Your task to perform on an android device: Find coffee shops on Maps Image 0: 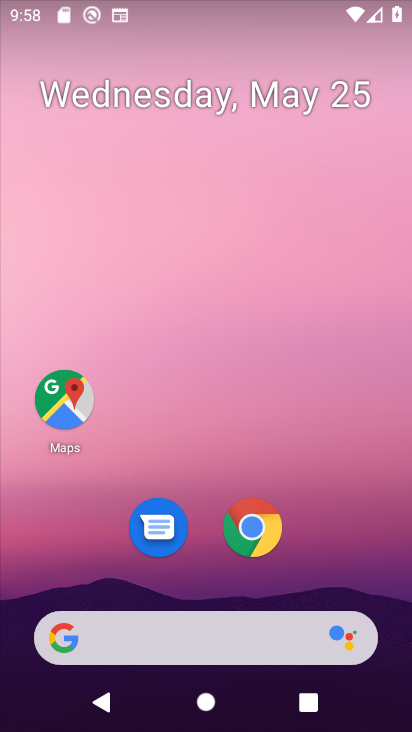
Step 0: click (66, 390)
Your task to perform on an android device: Find coffee shops on Maps Image 1: 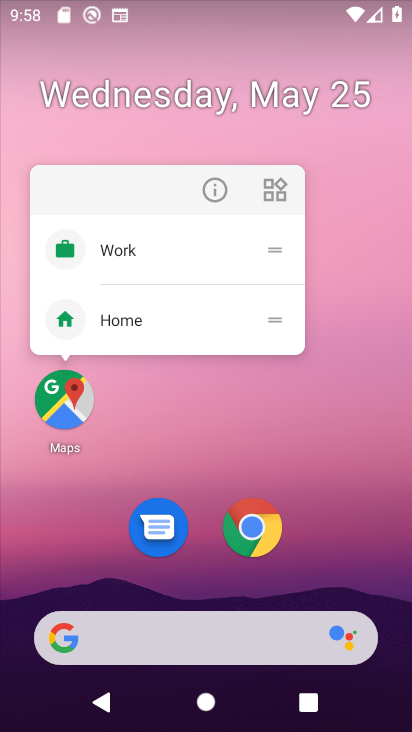
Step 1: click (77, 419)
Your task to perform on an android device: Find coffee shops on Maps Image 2: 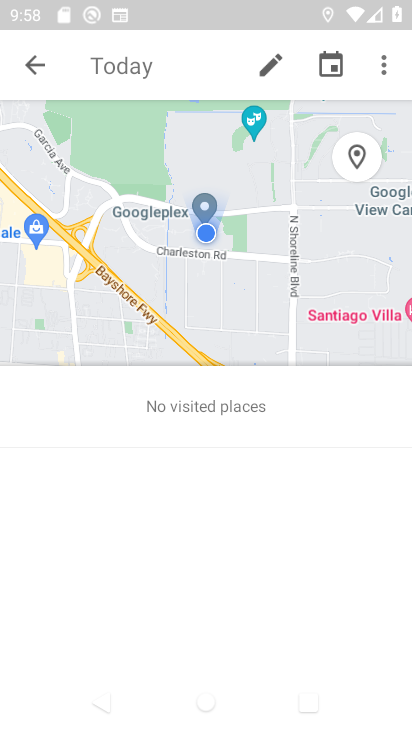
Step 2: click (48, 62)
Your task to perform on an android device: Find coffee shops on Maps Image 3: 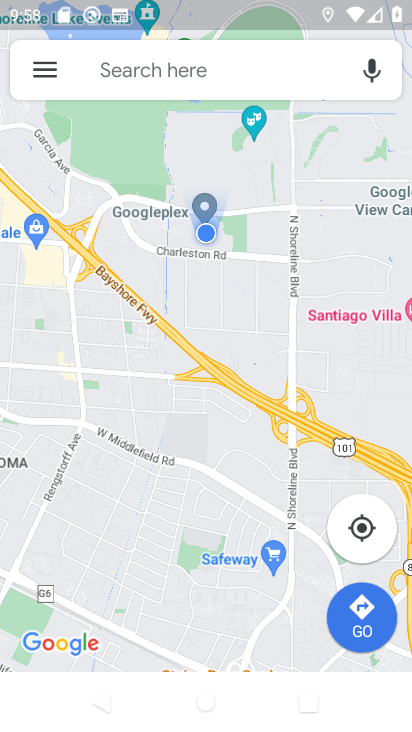
Step 3: click (185, 67)
Your task to perform on an android device: Find coffee shops on Maps Image 4: 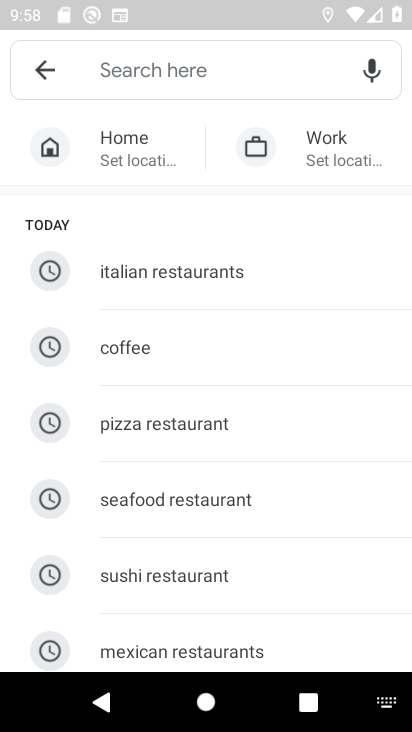
Step 4: click (251, 340)
Your task to perform on an android device: Find coffee shops on Maps Image 5: 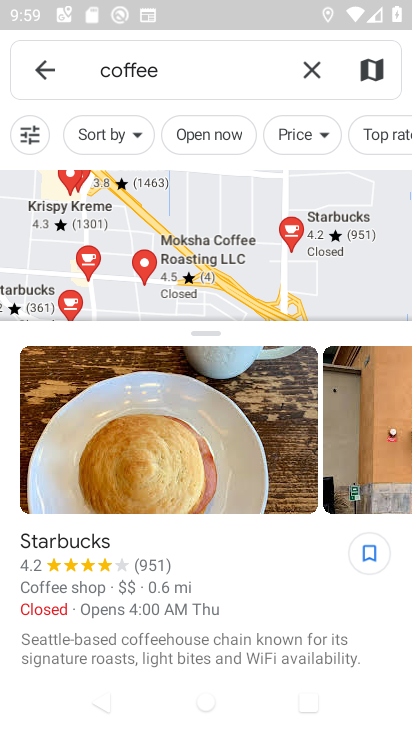
Step 5: task complete